Your task to perform on an android device: Go to CNN.com Image 0: 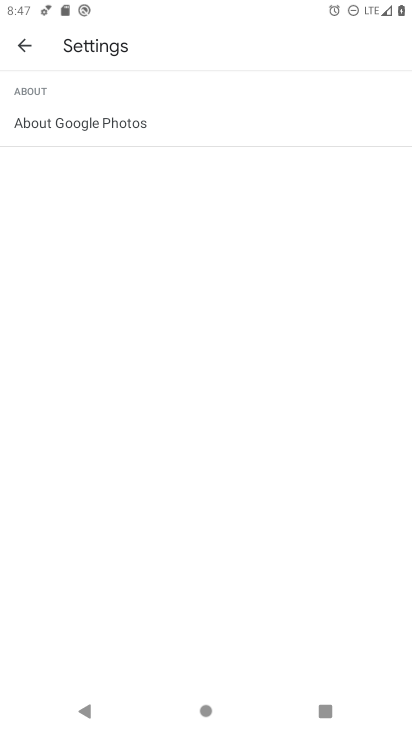
Step 0: click (12, 47)
Your task to perform on an android device: Go to CNN.com Image 1: 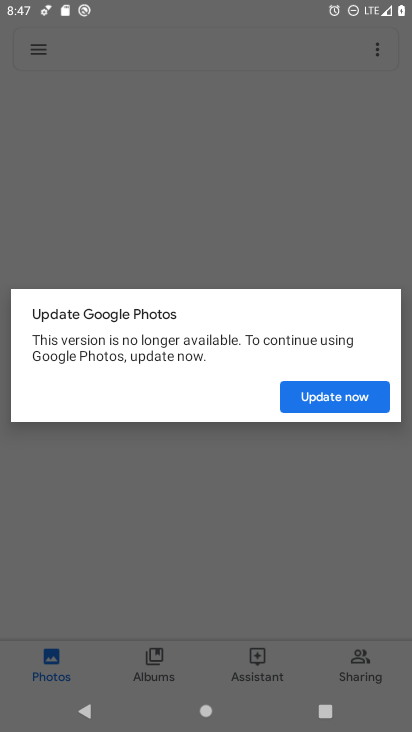
Step 1: click (18, 48)
Your task to perform on an android device: Go to CNN.com Image 2: 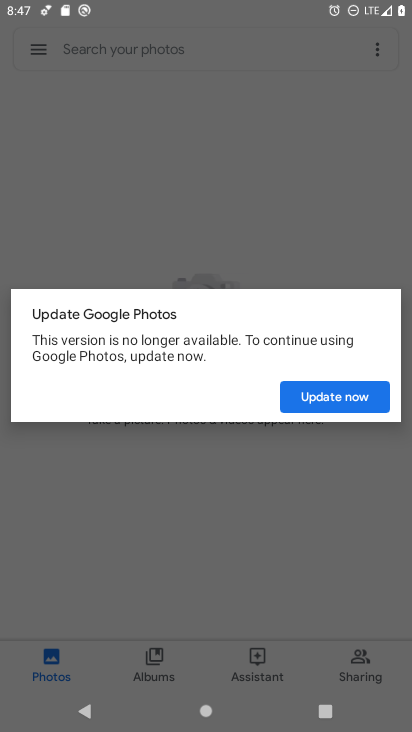
Step 2: press home button
Your task to perform on an android device: Go to CNN.com Image 3: 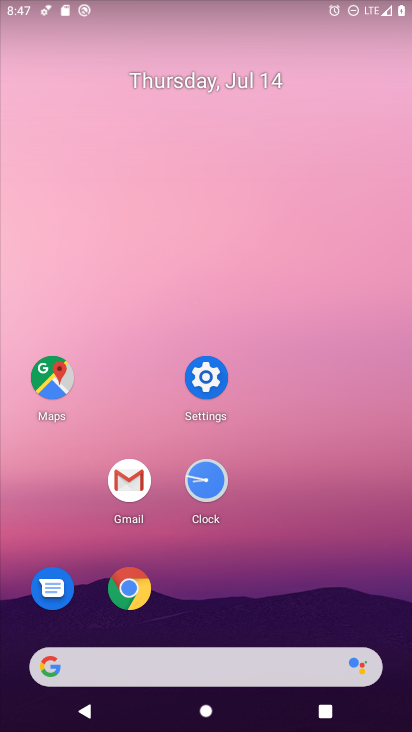
Step 3: click (115, 585)
Your task to perform on an android device: Go to CNN.com Image 4: 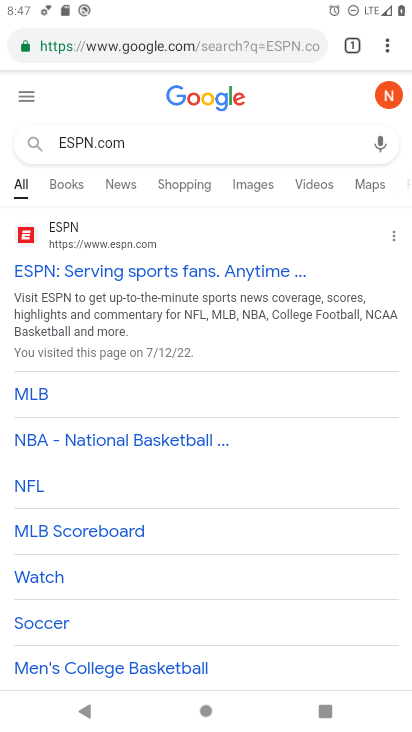
Step 4: click (311, 43)
Your task to perform on an android device: Go to CNN.com Image 5: 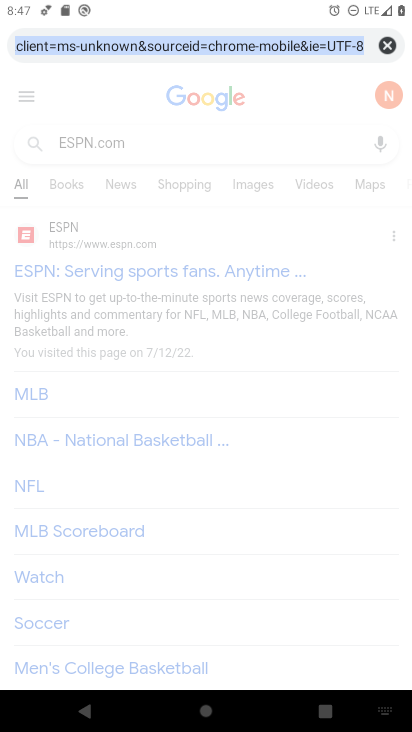
Step 5: click (381, 45)
Your task to perform on an android device: Go to CNN.com Image 6: 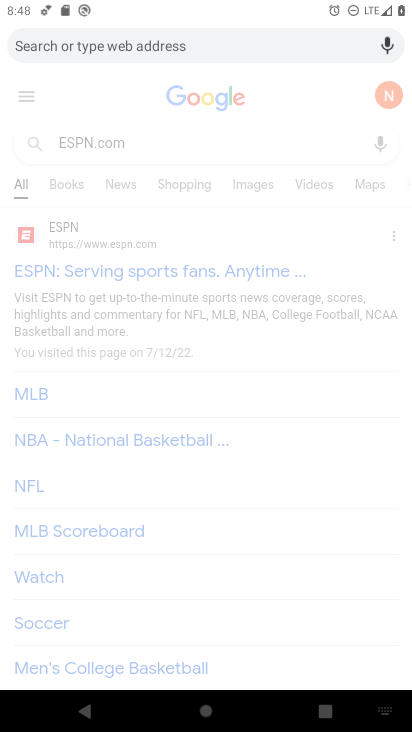
Step 6: type "CNN.com"
Your task to perform on an android device: Go to CNN.com Image 7: 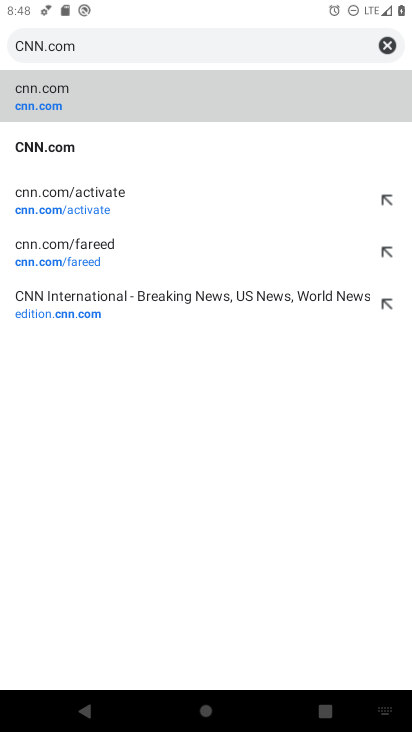
Step 7: click (55, 145)
Your task to perform on an android device: Go to CNN.com Image 8: 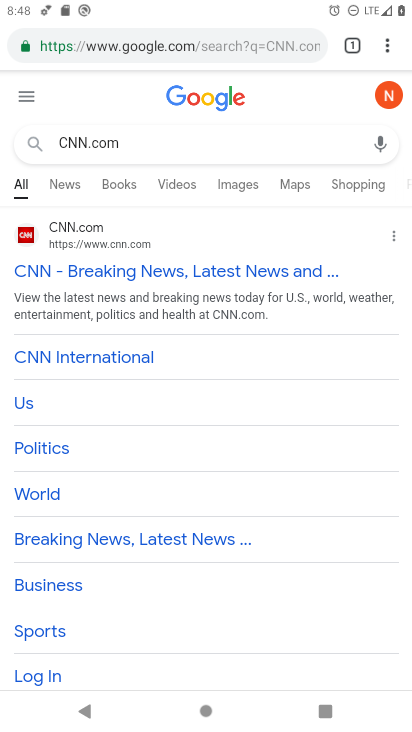
Step 8: task complete